Your task to perform on an android device: Open Yahoo.com Image 0: 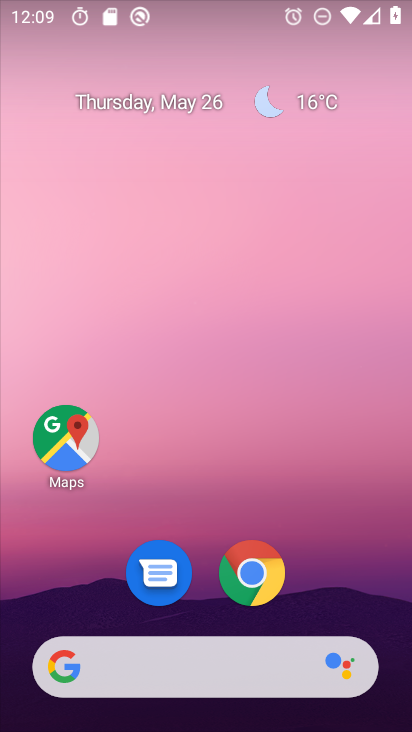
Step 0: click (251, 579)
Your task to perform on an android device: Open Yahoo.com Image 1: 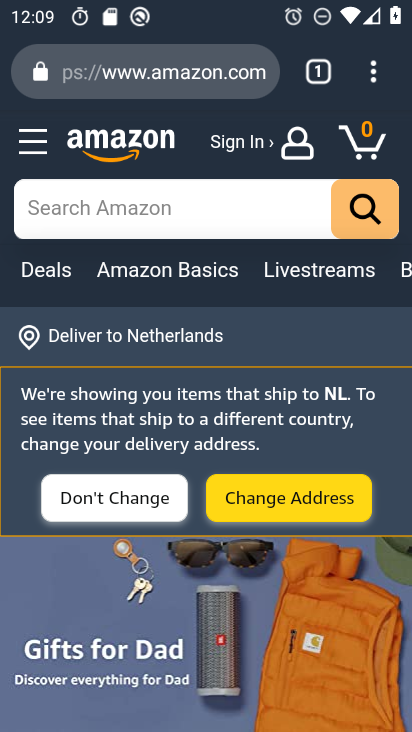
Step 1: click (120, 70)
Your task to perform on an android device: Open Yahoo.com Image 2: 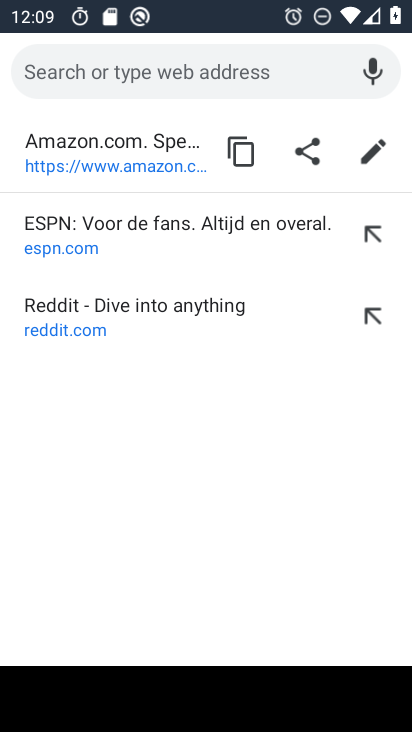
Step 2: type "yahoo.com"
Your task to perform on an android device: Open Yahoo.com Image 3: 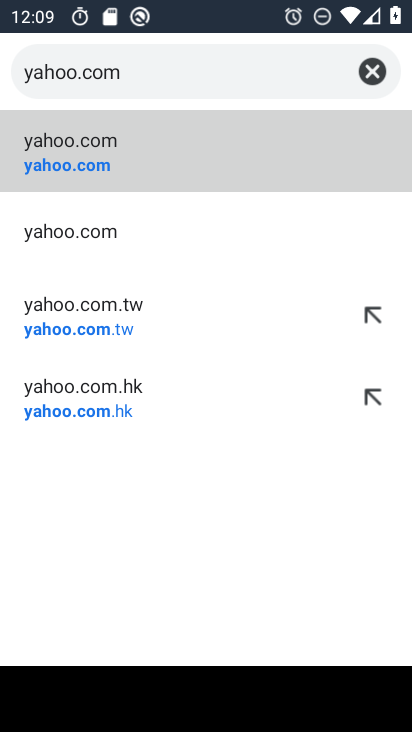
Step 3: click (60, 155)
Your task to perform on an android device: Open Yahoo.com Image 4: 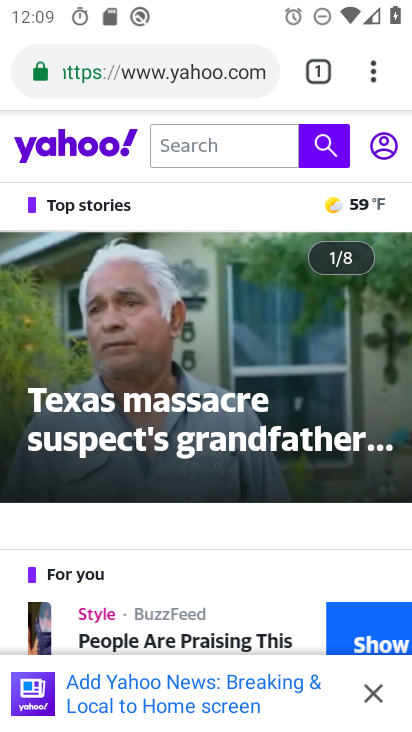
Step 4: task complete